Your task to perform on an android device: show emergency info Image 0: 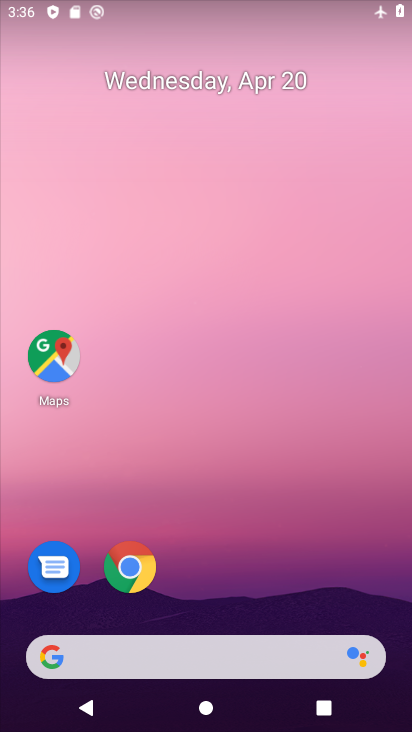
Step 0: drag from (371, 516) to (305, 181)
Your task to perform on an android device: show emergency info Image 1: 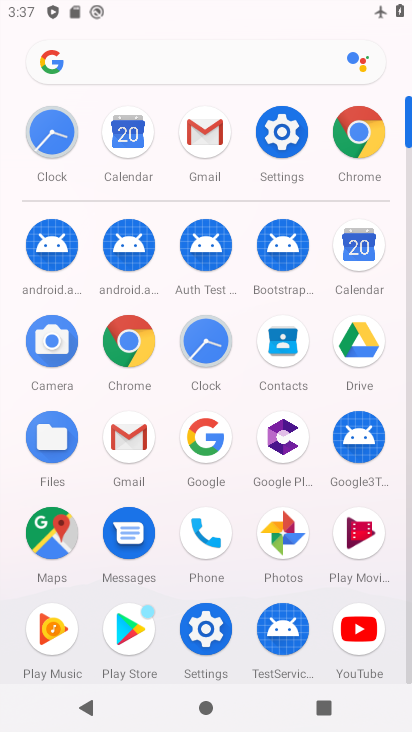
Step 1: click (294, 139)
Your task to perform on an android device: show emergency info Image 2: 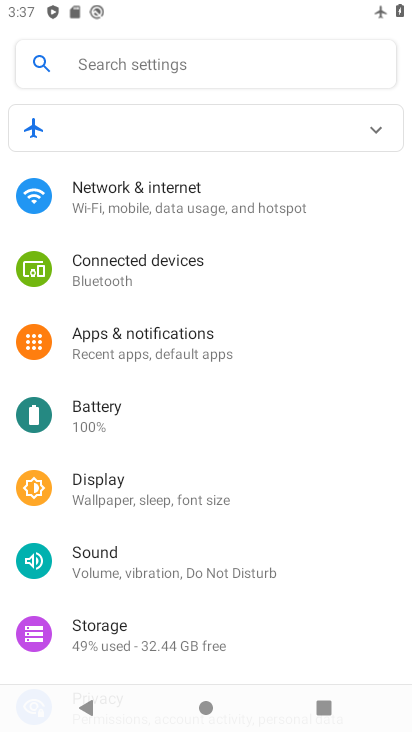
Step 2: drag from (290, 604) to (315, 22)
Your task to perform on an android device: show emergency info Image 3: 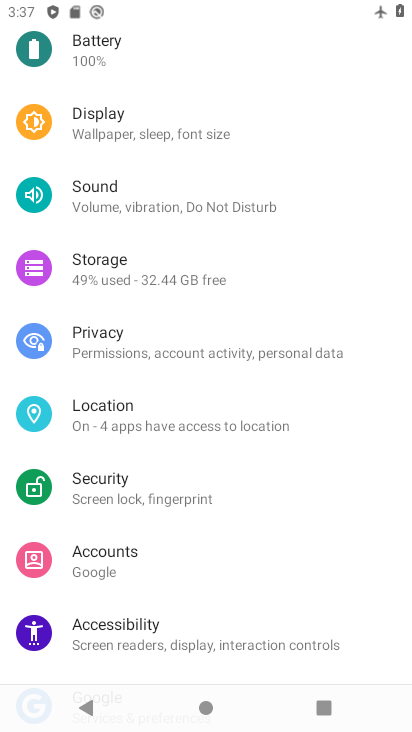
Step 3: drag from (313, 525) to (318, 6)
Your task to perform on an android device: show emergency info Image 4: 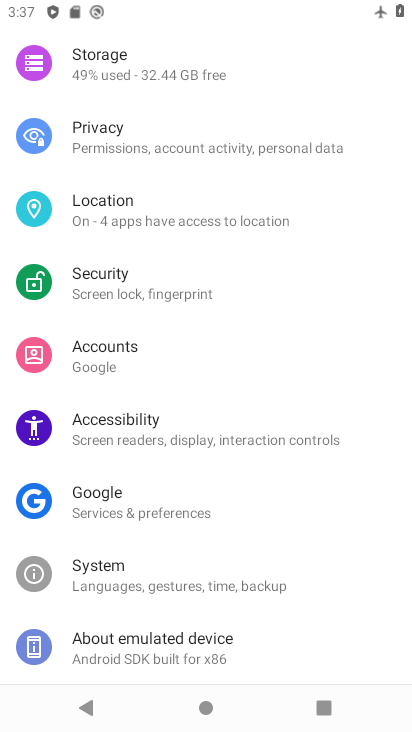
Step 4: click (284, 652)
Your task to perform on an android device: show emergency info Image 5: 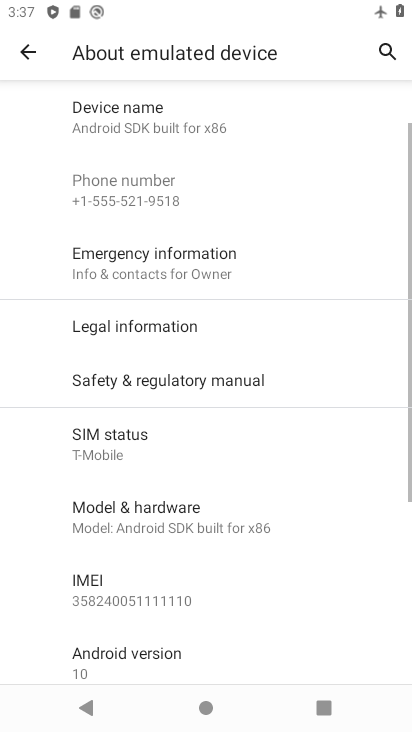
Step 5: click (294, 262)
Your task to perform on an android device: show emergency info Image 6: 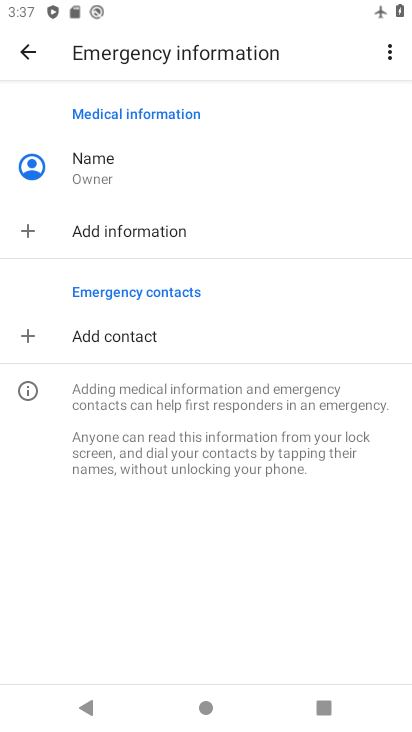
Step 6: task complete